Your task to perform on an android device: Open Google Chrome and open the bookmarks view Image 0: 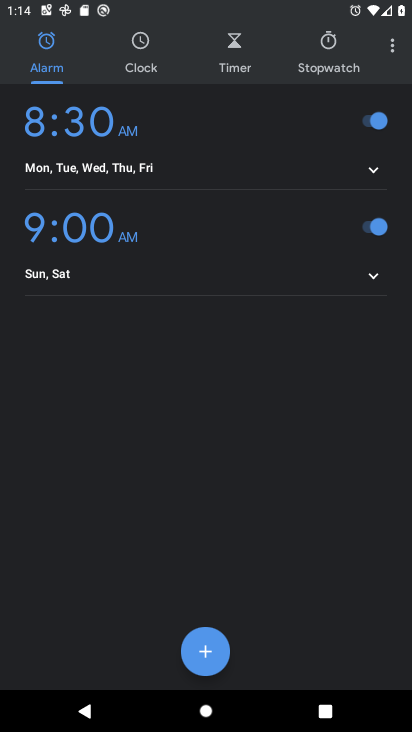
Step 0: press home button
Your task to perform on an android device: Open Google Chrome and open the bookmarks view Image 1: 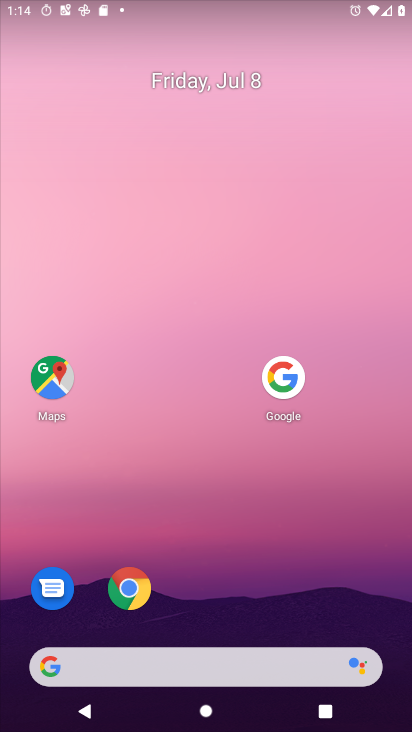
Step 1: click (130, 594)
Your task to perform on an android device: Open Google Chrome and open the bookmarks view Image 2: 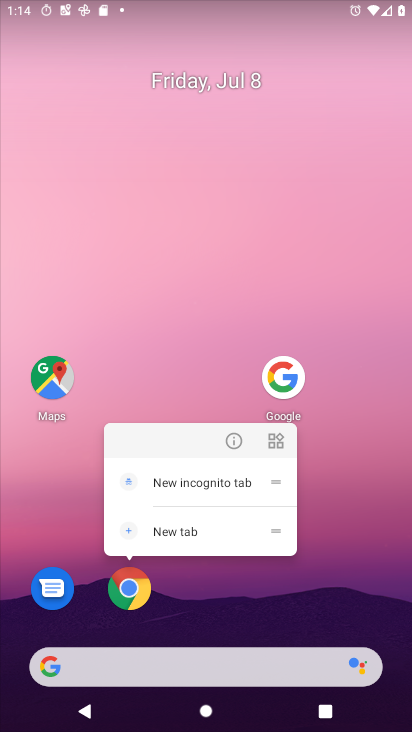
Step 2: click (130, 587)
Your task to perform on an android device: Open Google Chrome and open the bookmarks view Image 3: 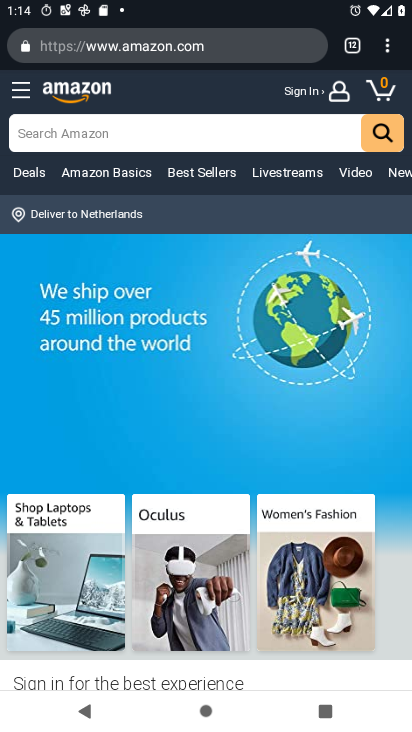
Step 3: task complete